Your task to perform on an android device: What's the weather? Image 0: 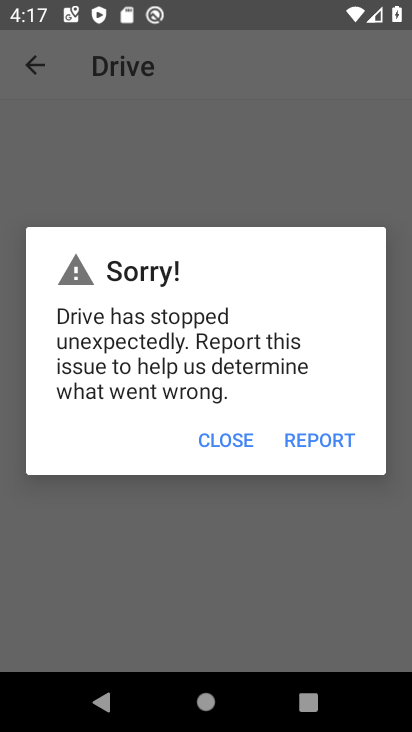
Step 0: press home button
Your task to perform on an android device: What's the weather? Image 1: 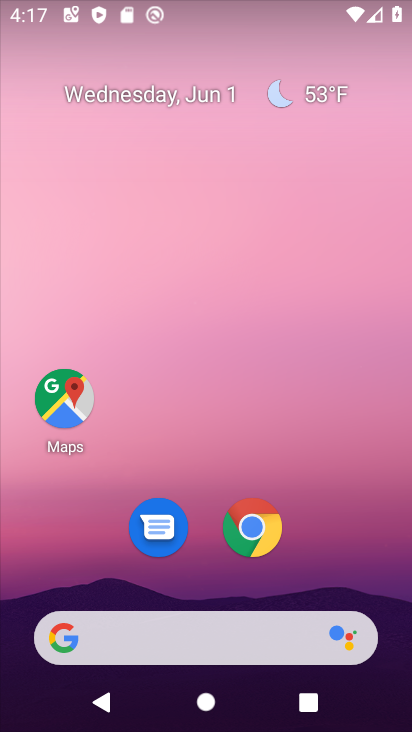
Step 1: drag from (334, 560) to (363, 21)
Your task to perform on an android device: What's the weather? Image 2: 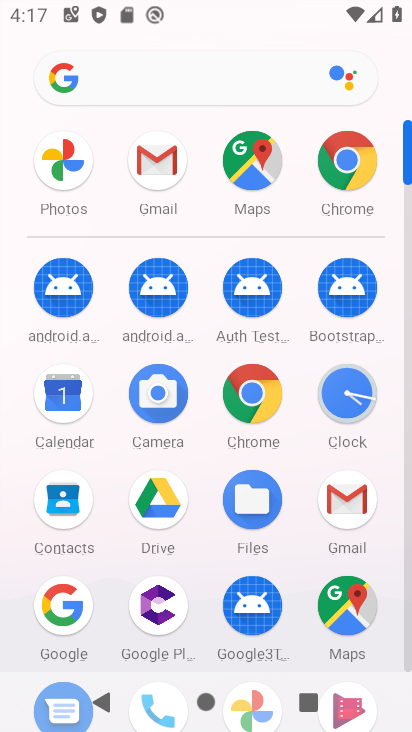
Step 2: click (337, 611)
Your task to perform on an android device: What's the weather? Image 3: 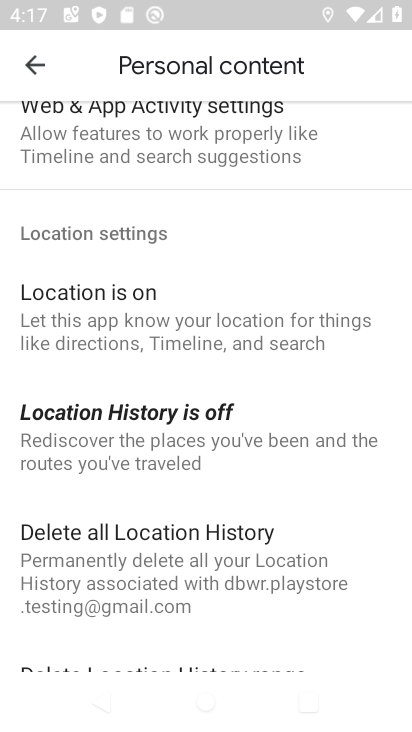
Step 3: press home button
Your task to perform on an android device: What's the weather? Image 4: 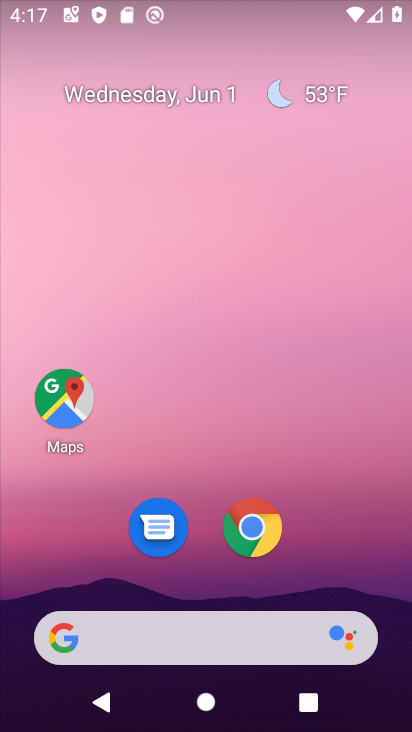
Step 4: click (240, 518)
Your task to perform on an android device: What's the weather? Image 5: 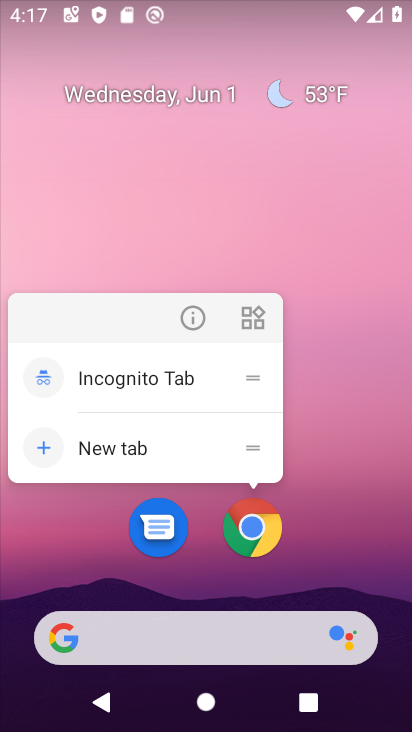
Step 5: drag from (276, 557) to (303, 87)
Your task to perform on an android device: What's the weather? Image 6: 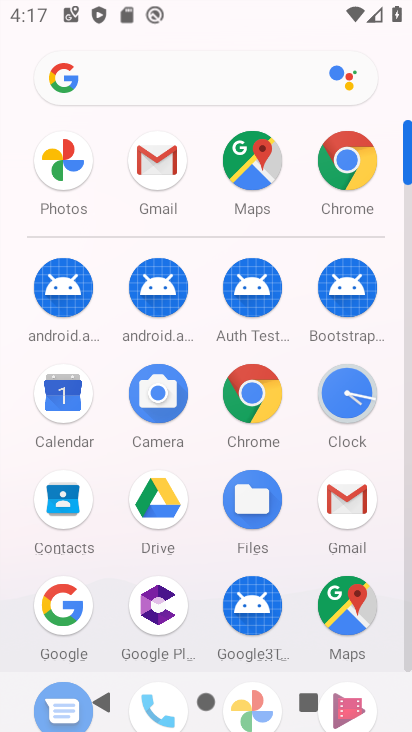
Step 6: click (253, 401)
Your task to perform on an android device: What's the weather? Image 7: 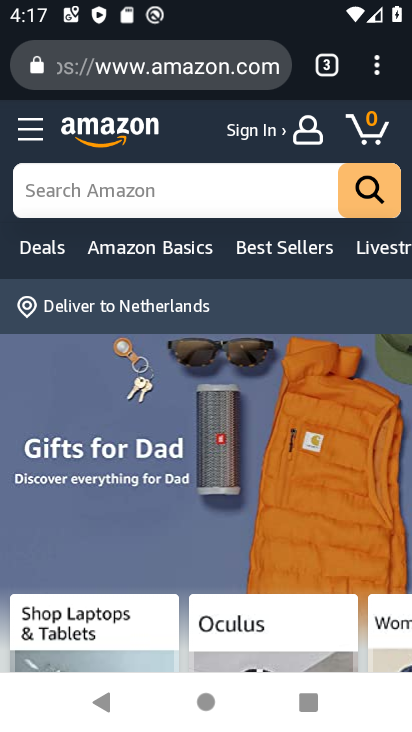
Step 7: click (166, 70)
Your task to perform on an android device: What's the weather? Image 8: 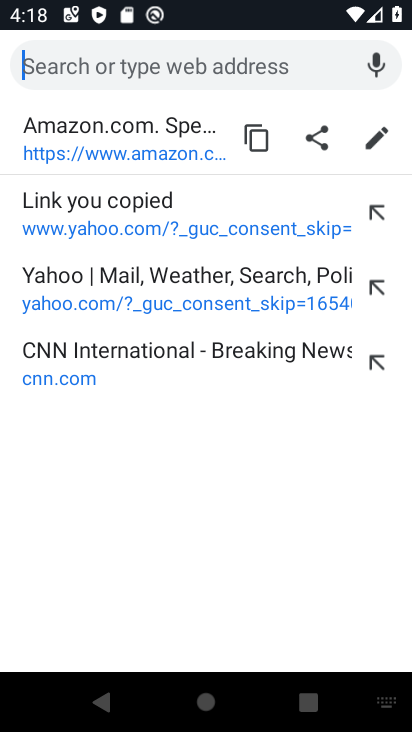
Step 8: type "What's the weather?"
Your task to perform on an android device: What's the weather? Image 9: 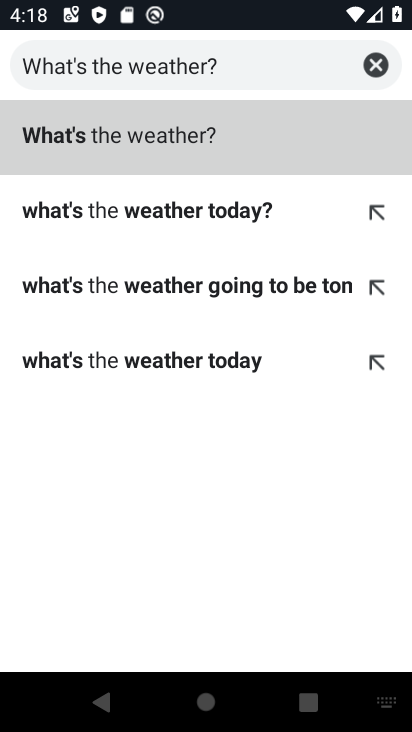
Step 9: click (146, 138)
Your task to perform on an android device: What's the weather? Image 10: 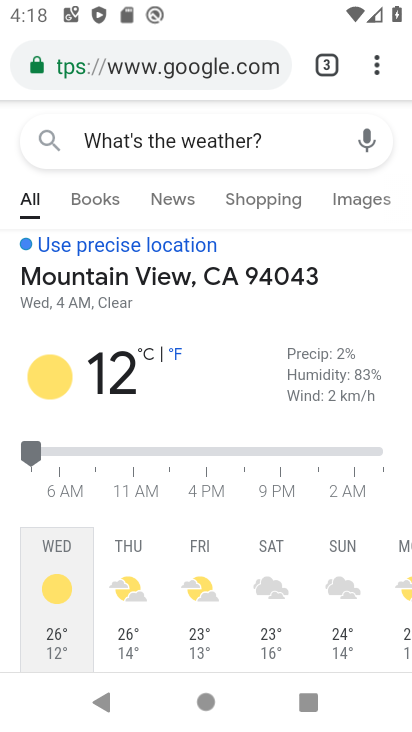
Step 10: task complete